Your task to perform on an android device: change the clock display to digital Image 0: 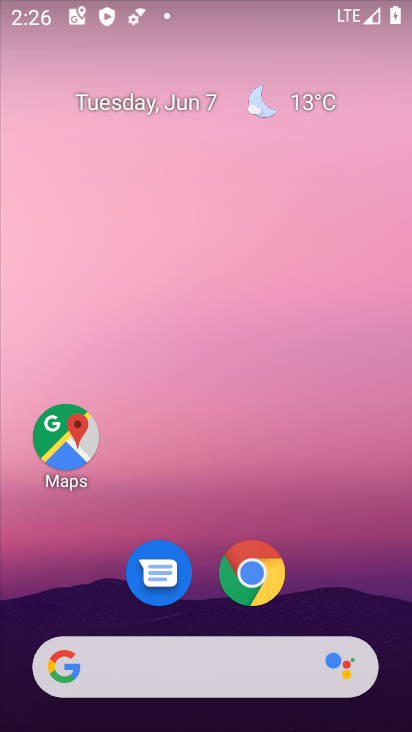
Step 0: drag from (310, 609) to (308, 4)
Your task to perform on an android device: change the clock display to digital Image 1: 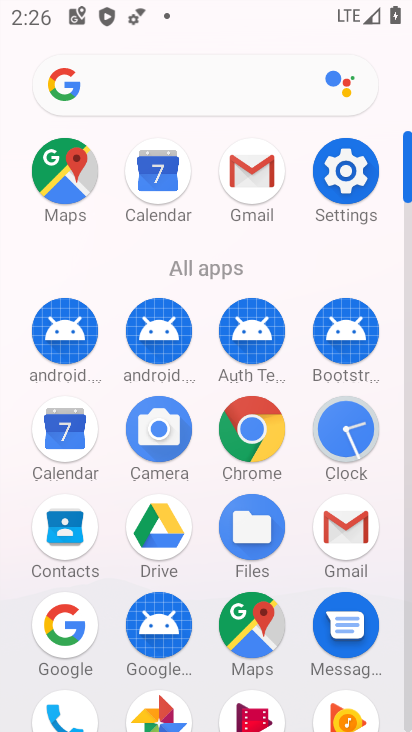
Step 1: click (349, 426)
Your task to perform on an android device: change the clock display to digital Image 2: 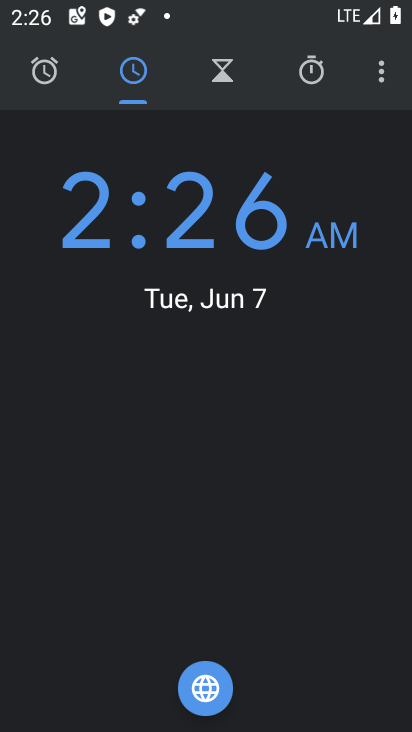
Step 2: click (374, 61)
Your task to perform on an android device: change the clock display to digital Image 3: 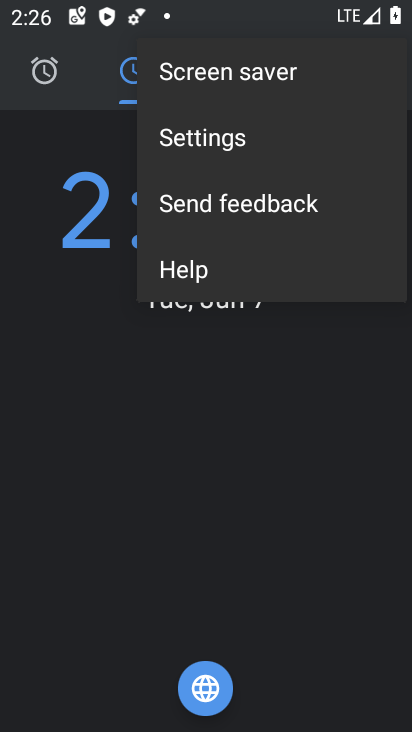
Step 3: click (164, 148)
Your task to perform on an android device: change the clock display to digital Image 4: 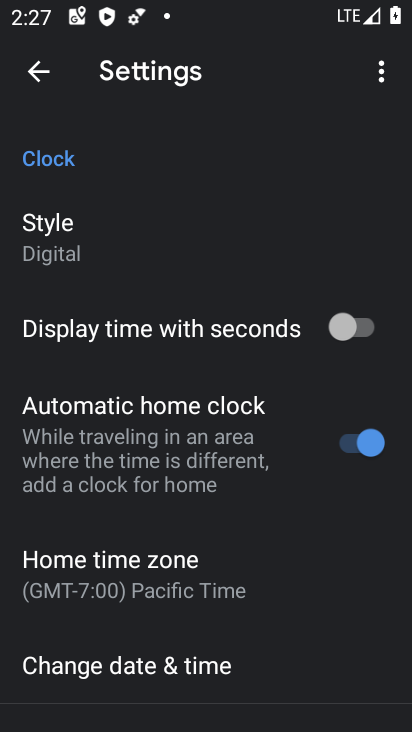
Step 4: click (52, 253)
Your task to perform on an android device: change the clock display to digital Image 5: 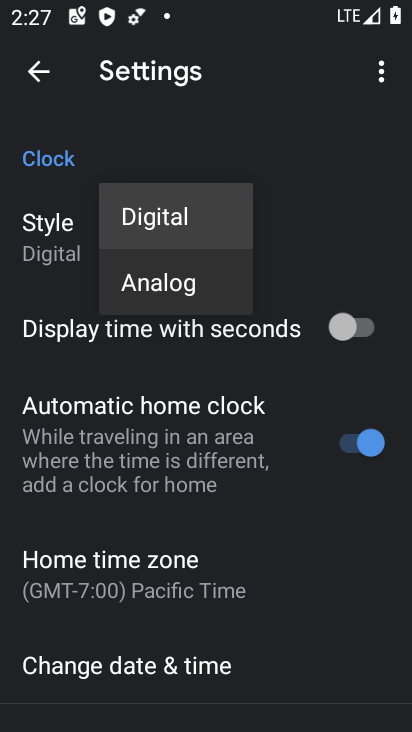
Step 5: click (194, 229)
Your task to perform on an android device: change the clock display to digital Image 6: 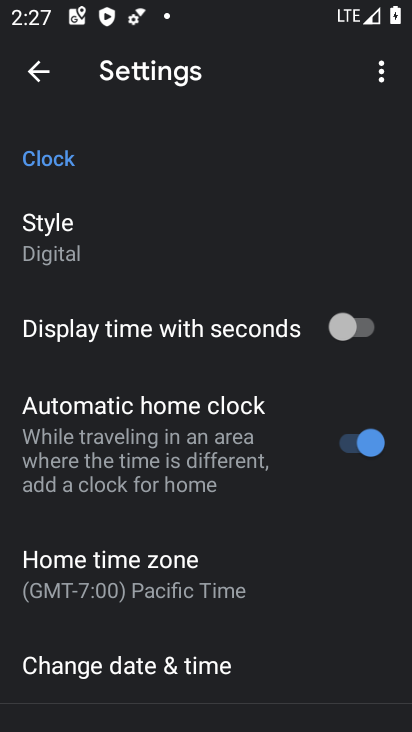
Step 6: task complete